Your task to perform on an android device: Open maps Image 0: 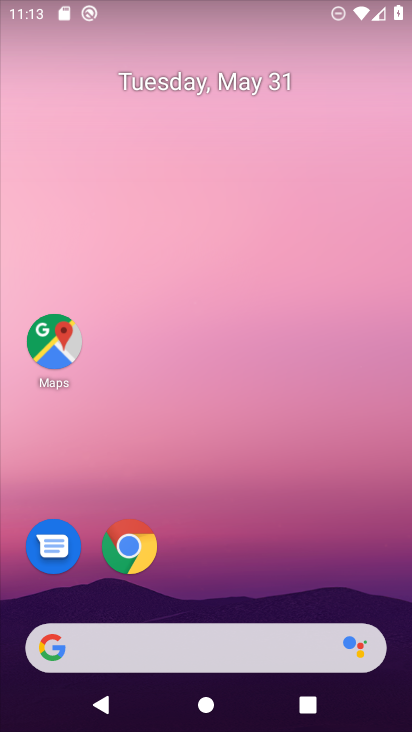
Step 0: drag from (287, 622) to (337, 26)
Your task to perform on an android device: Open maps Image 1: 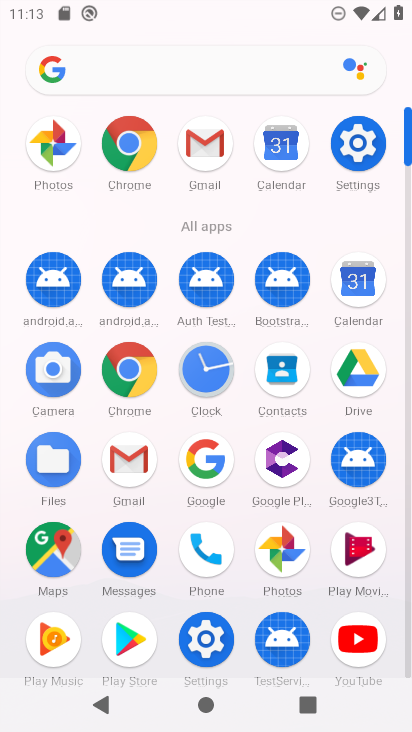
Step 1: click (44, 548)
Your task to perform on an android device: Open maps Image 2: 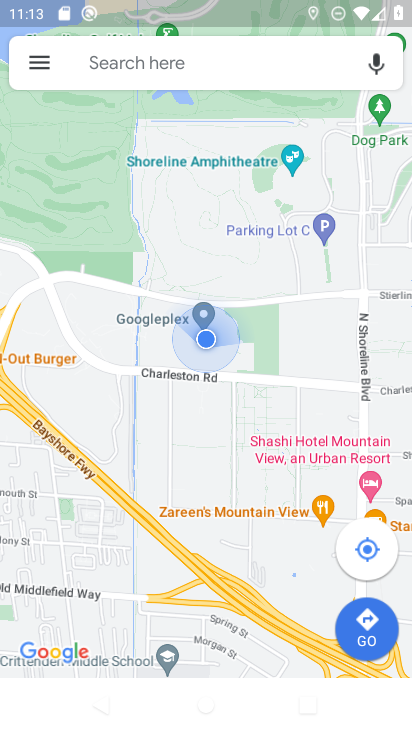
Step 2: task complete